Your task to perform on an android device: allow notifications from all sites in the chrome app Image 0: 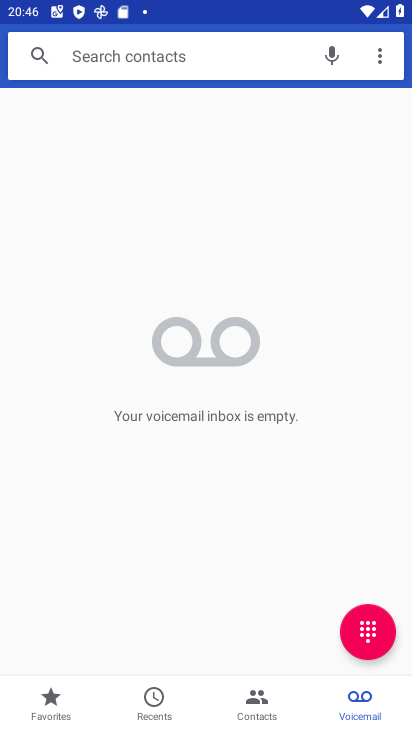
Step 0: press home button
Your task to perform on an android device: allow notifications from all sites in the chrome app Image 1: 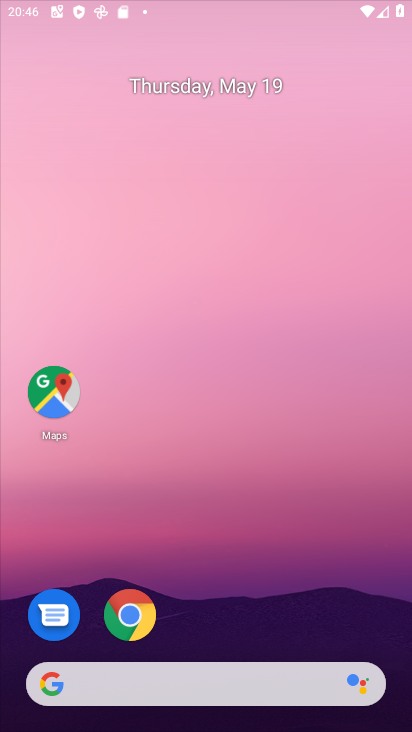
Step 1: drag from (266, 611) to (301, 135)
Your task to perform on an android device: allow notifications from all sites in the chrome app Image 2: 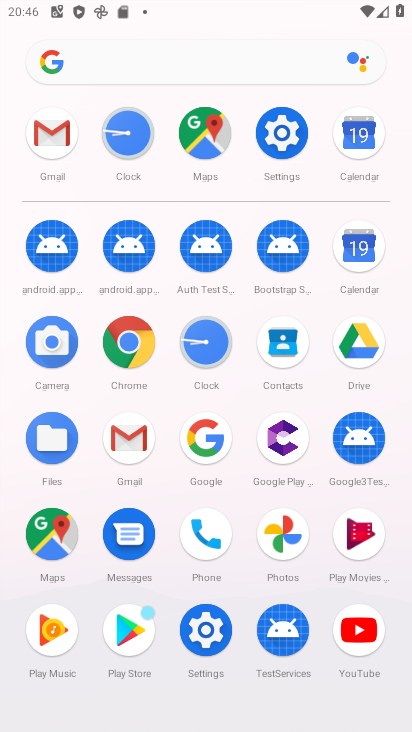
Step 2: click (128, 342)
Your task to perform on an android device: allow notifications from all sites in the chrome app Image 3: 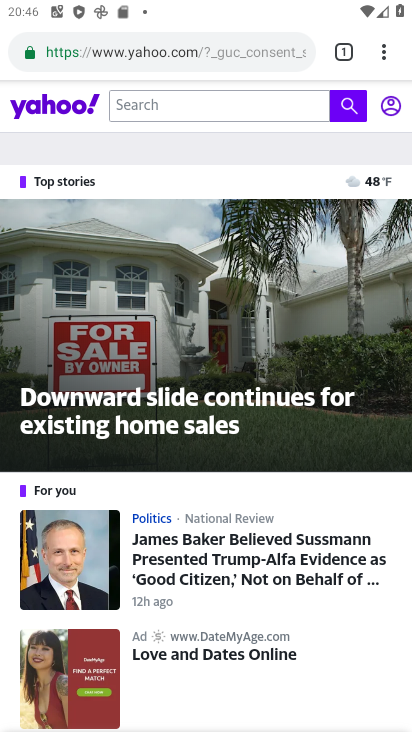
Step 3: click (379, 53)
Your task to perform on an android device: allow notifications from all sites in the chrome app Image 4: 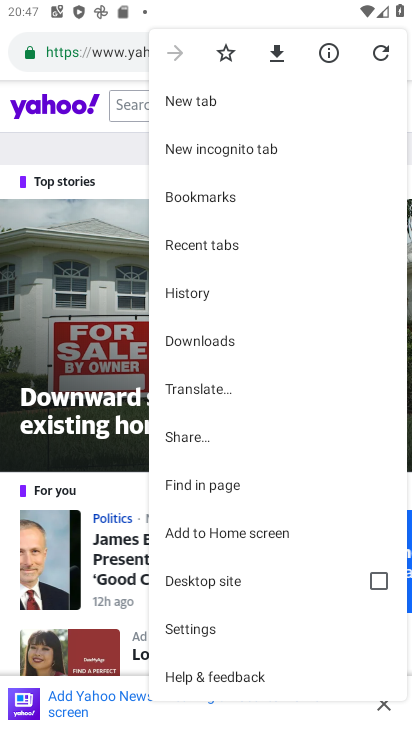
Step 4: click (212, 633)
Your task to perform on an android device: allow notifications from all sites in the chrome app Image 5: 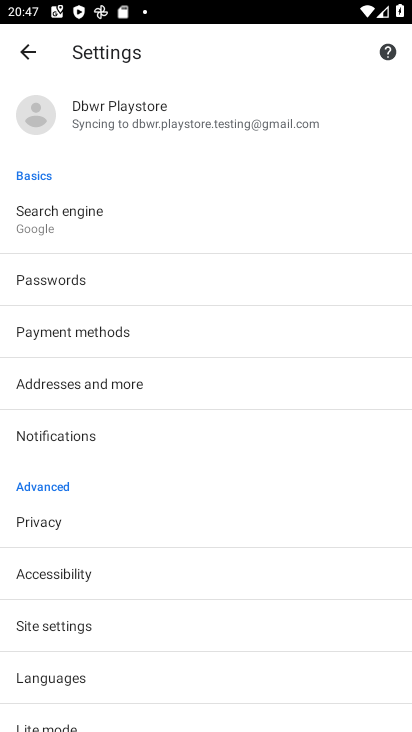
Step 5: drag from (204, 644) to (226, 191)
Your task to perform on an android device: allow notifications from all sites in the chrome app Image 6: 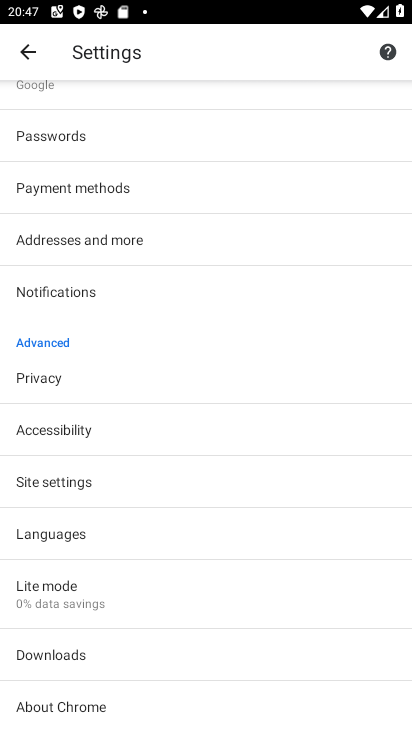
Step 6: click (54, 477)
Your task to perform on an android device: allow notifications from all sites in the chrome app Image 7: 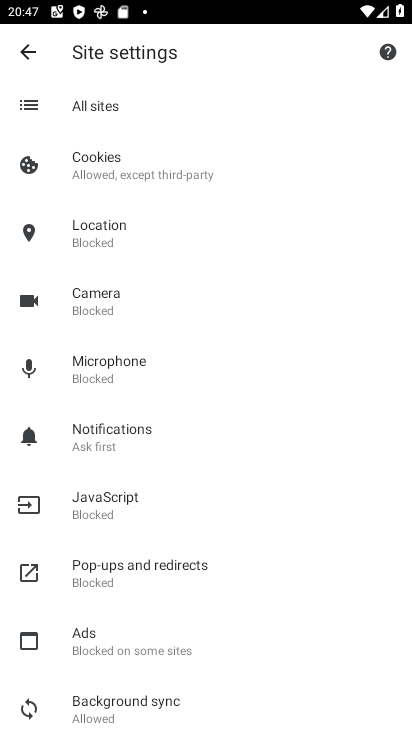
Step 7: drag from (164, 628) to (193, 225)
Your task to perform on an android device: allow notifications from all sites in the chrome app Image 8: 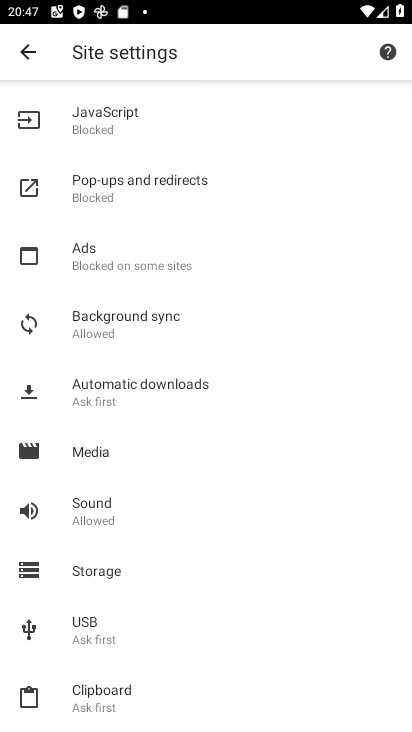
Step 8: drag from (148, 207) to (177, 474)
Your task to perform on an android device: allow notifications from all sites in the chrome app Image 9: 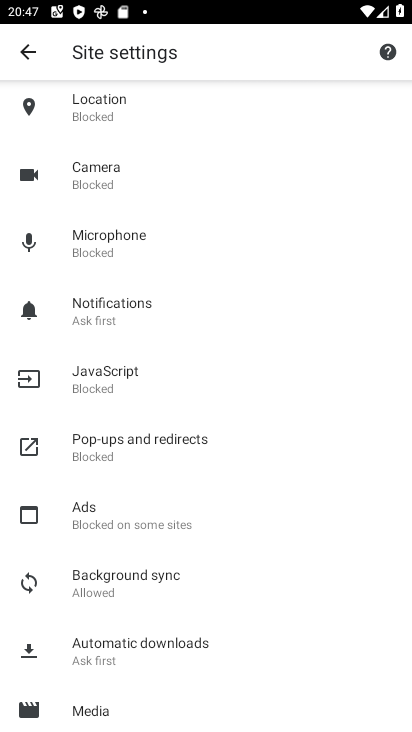
Step 9: click (117, 308)
Your task to perform on an android device: allow notifications from all sites in the chrome app Image 10: 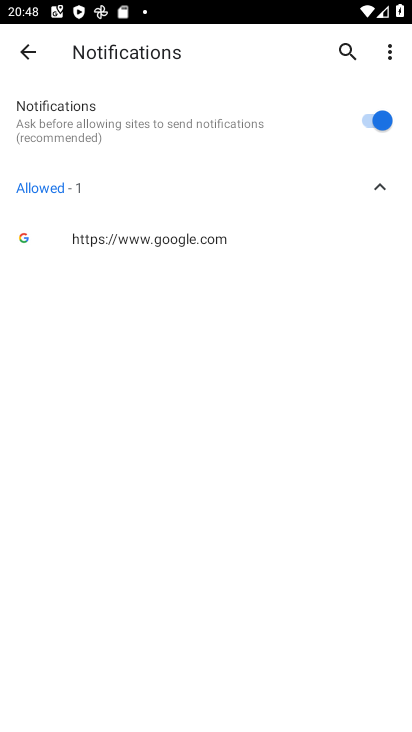
Step 10: task complete